Your task to perform on an android device: toggle airplane mode Image 0: 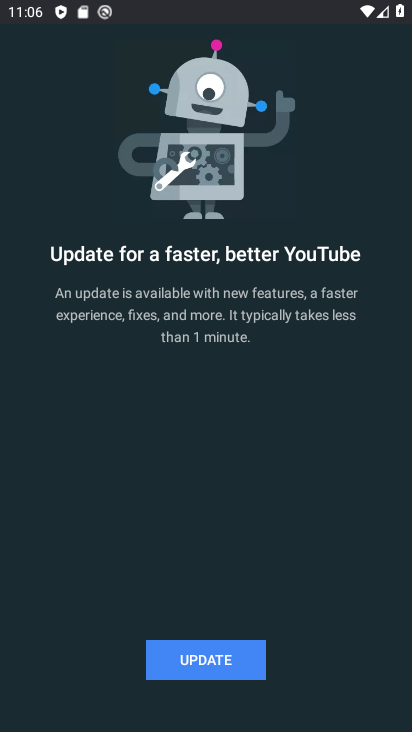
Step 0: press home button
Your task to perform on an android device: toggle airplane mode Image 1: 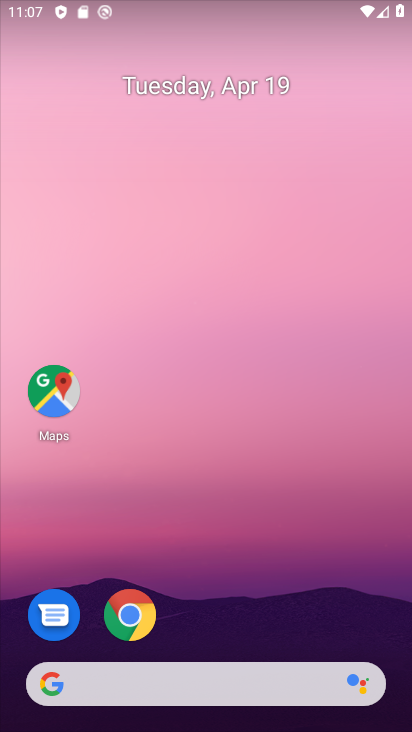
Step 1: drag from (219, 628) to (293, 18)
Your task to perform on an android device: toggle airplane mode Image 2: 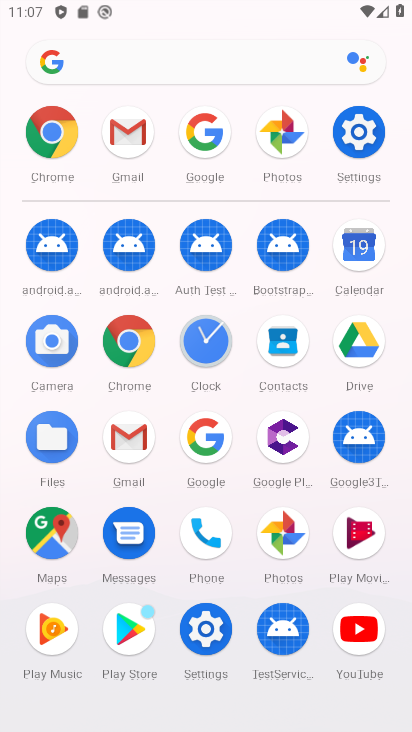
Step 2: click (349, 149)
Your task to perform on an android device: toggle airplane mode Image 3: 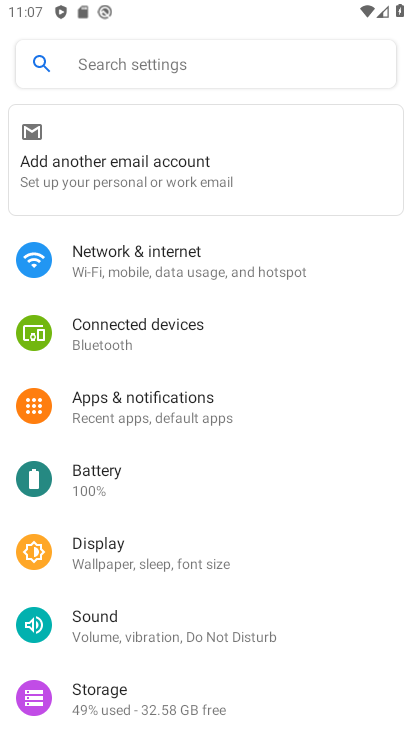
Step 3: click (143, 259)
Your task to perform on an android device: toggle airplane mode Image 4: 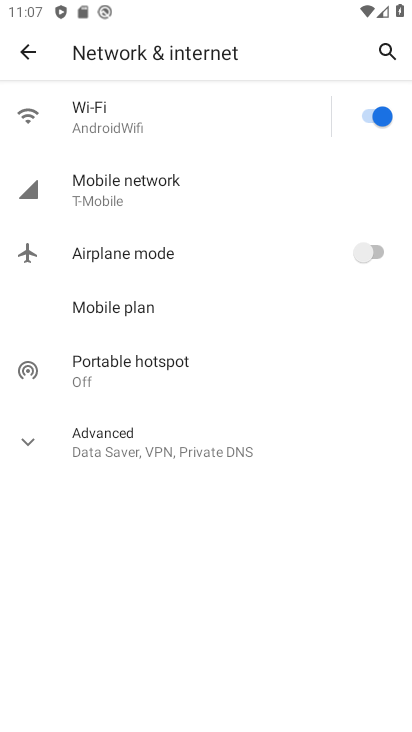
Step 4: click (377, 250)
Your task to perform on an android device: toggle airplane mode Image 5: 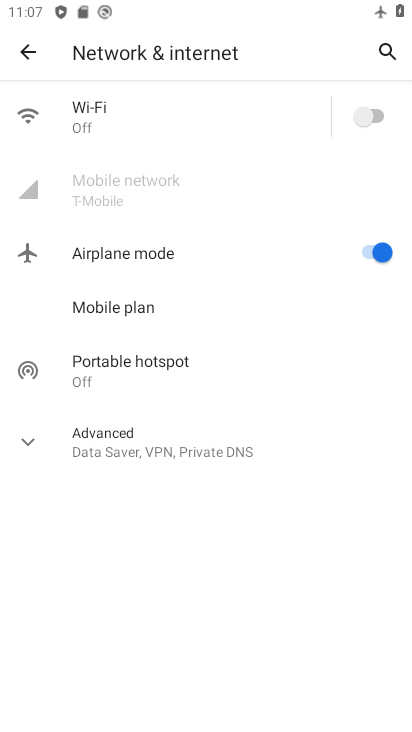
Step 5: task complete